Your task to perform on an android device: Open Google Chrome Image 0: 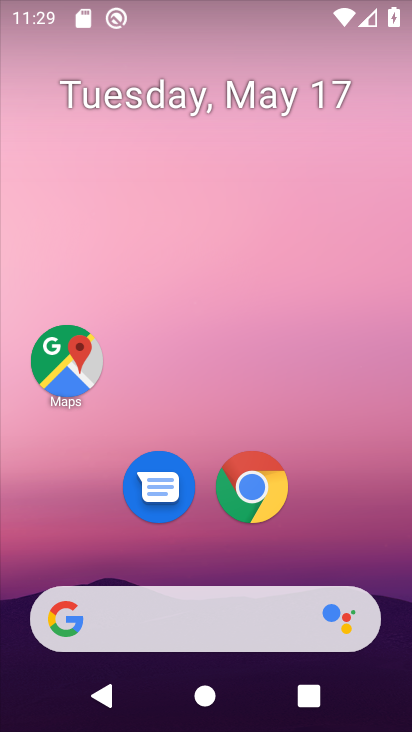
Step 0: drag from (332, 535) to (266, 156)
Your task to perform on an android device: Open Google Chrome Image 1: 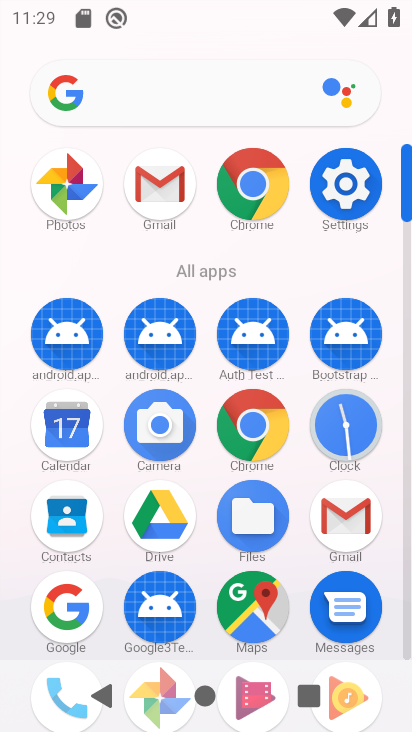
Step 1: click (269, 204)
Your task to perform on an android device: Open Google Chrome Image 2: 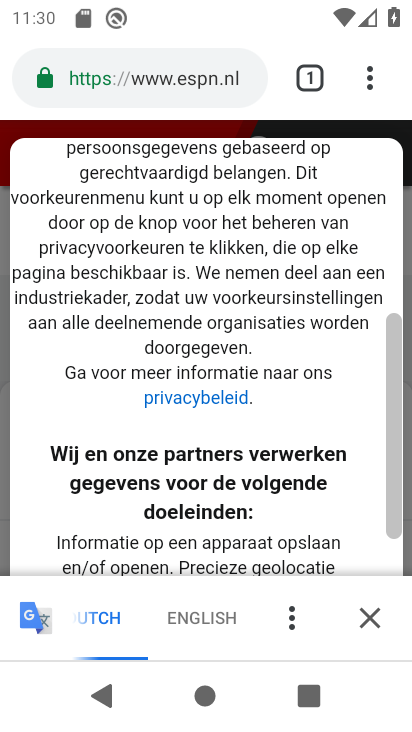
Step 2: task complete